Your task to perform on an android device: check android version Image 0: 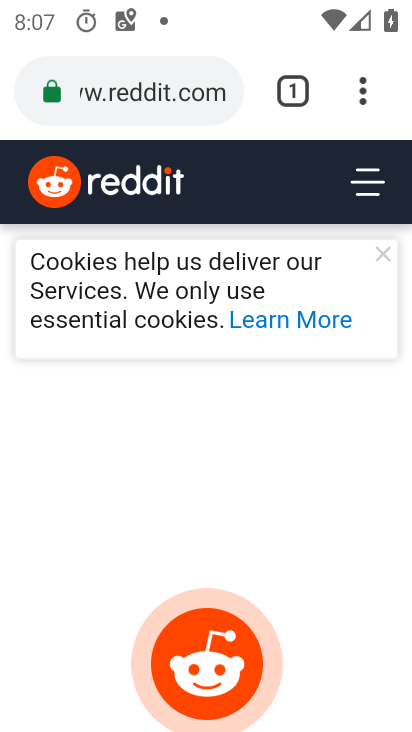
Step 0: press home button
Your task to perform on an android device: check android version Image 1: 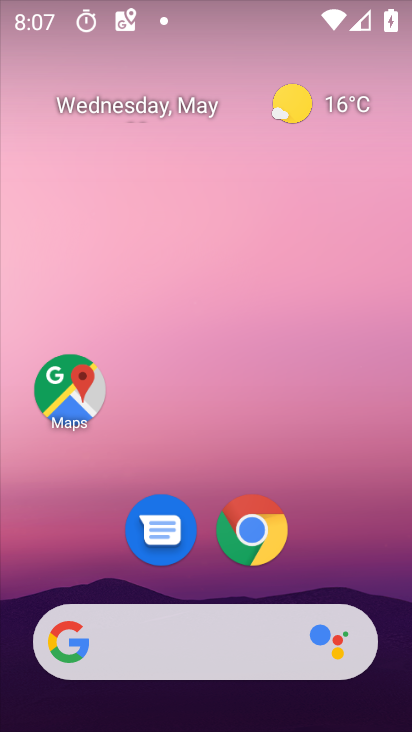
Step 1: drag from (247, 566) to (233, 193)
Your task to perform on an android device: check android version Image 2: 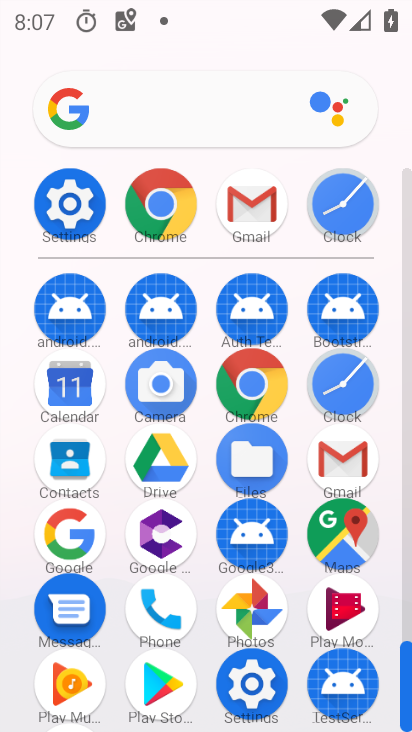
Step 2: click (246, 678)
Your task to perform on an android device: check android version Image 3: 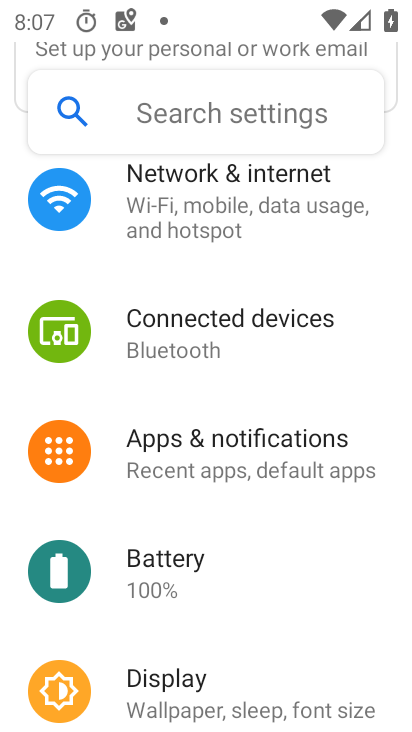
Step 3: drag from (261, 659) to (262, 244)
Your task to perform on an android device: check android version Image 4: 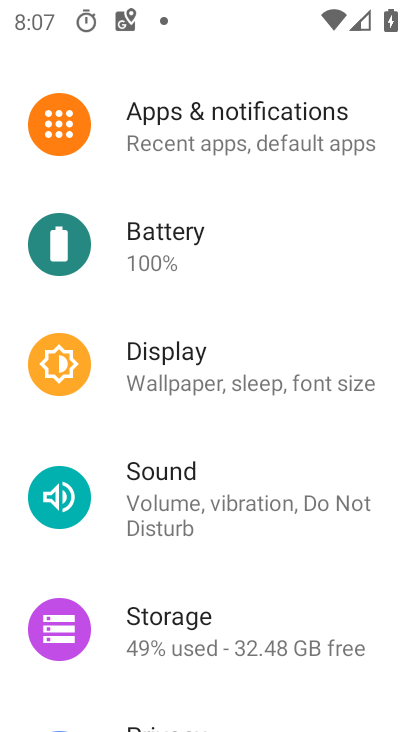
Step 4: drag from (200, 682) to (222, 227)
Your task to perform on an android device: check android version Image 5: 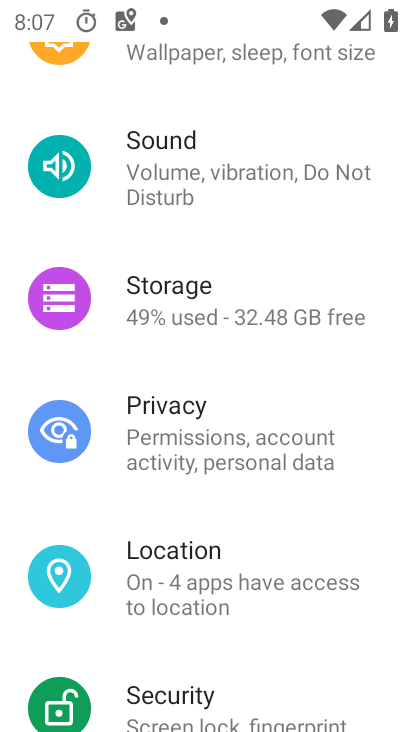
Step 5: drag from (220, 663) to (241, 276)
Your task to perform on an android device: check android version Image 6: 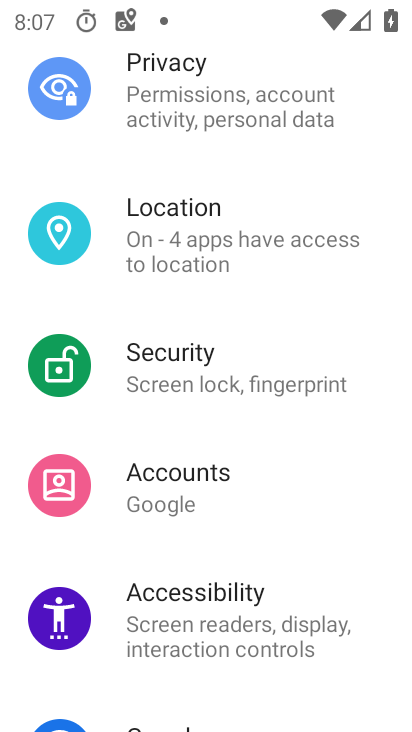
Step 6: drag from (212, 702) to (241, 238)
Your task to perform on an android device: check android version Image 7: 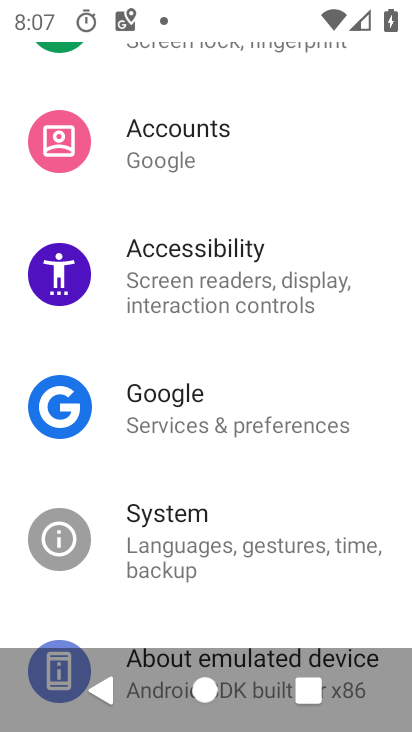
Step 7: drag from (270, 607) to (267, 417)
Your task to perform on an android device: check android version Image 8: 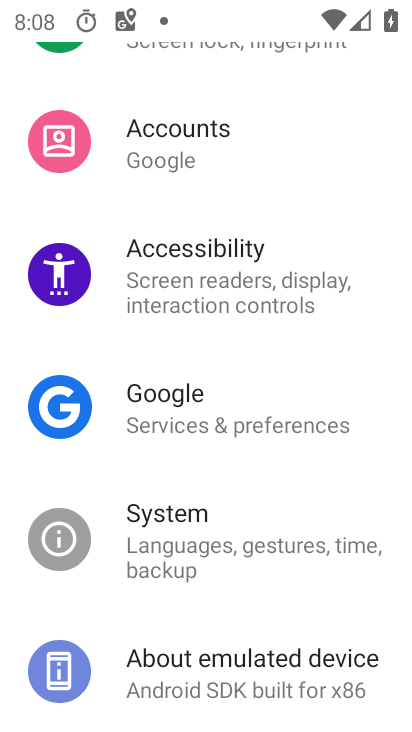
Step 8: click (158, 678)
Your task to perform on an android device: check android version Image 9: 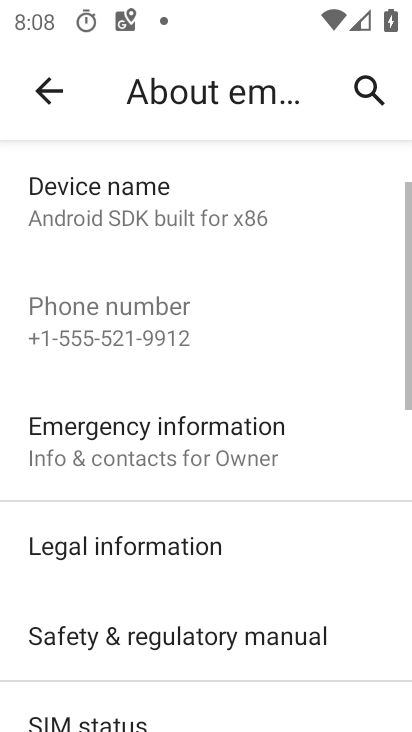
Step 9: drag from (155, 592) to (236, 199)
Your task to perform on an android device: check android version Image 10: 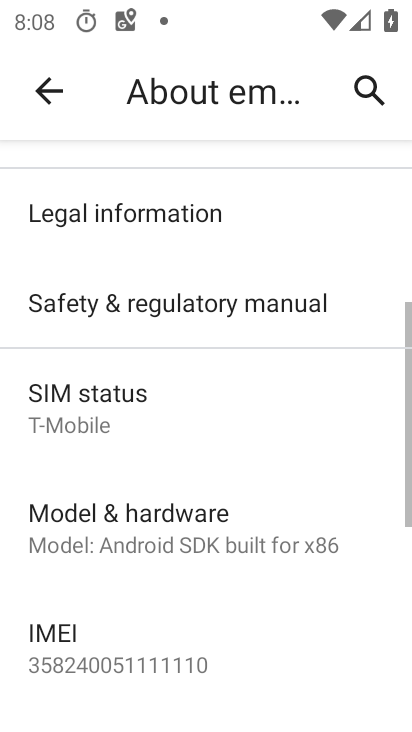
Step 10: drag from (129, 576) to (212, 223)
Your task to perform on an android device: check android version Image 11: 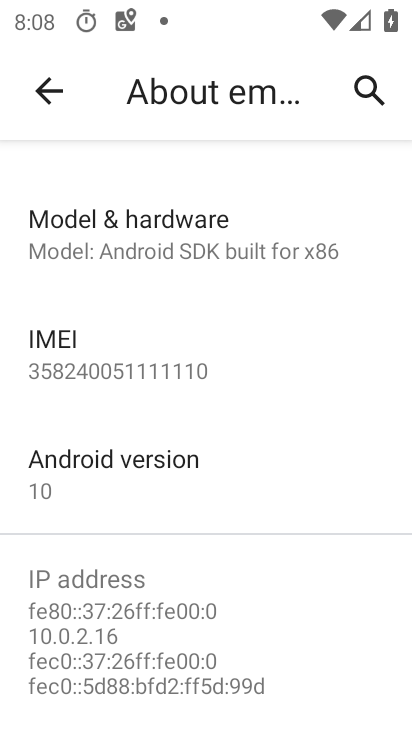
Step 11: click (117, 478)
Your task to perform on an android device: check android version Image 12: 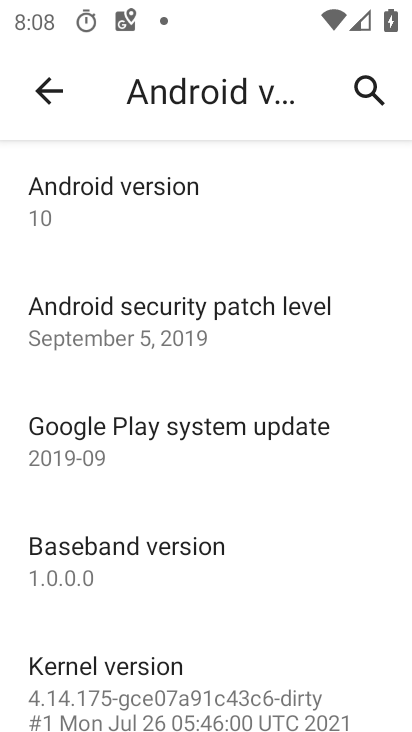
Step 12: task complete